Your task to perform on an android device: Open Youtube and go to "Your channel" Image 0: 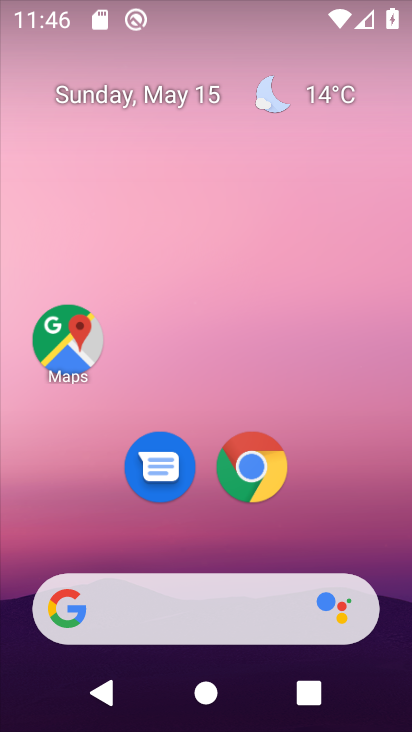
Step 0: drag from (217, 539) to (264, 36)
Your task to perform on an android device: Open Youtube and go to "Your channel" Image 1: 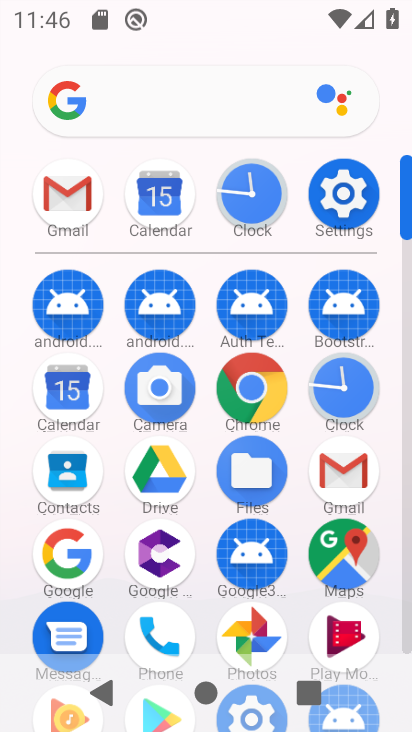
Step 1: drag from (299, 595) to (319, 209)
Your task to perform on an android device: Open Youtube and go to "Your channel" Image 2: 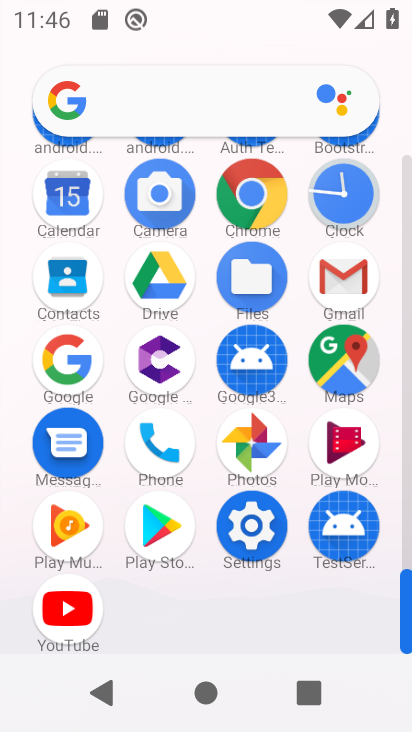
Step 2: click (72, 604)
Your task to perform on an android device: Open Youtube and go to "Your channel" Image 3: 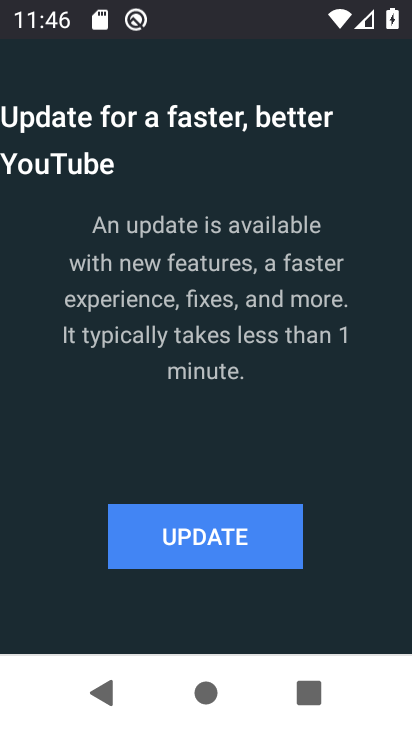
Step 3: click (222, 541)
Your task to perform on an android device: Open Youtube and go to "Your channel" Image 4: 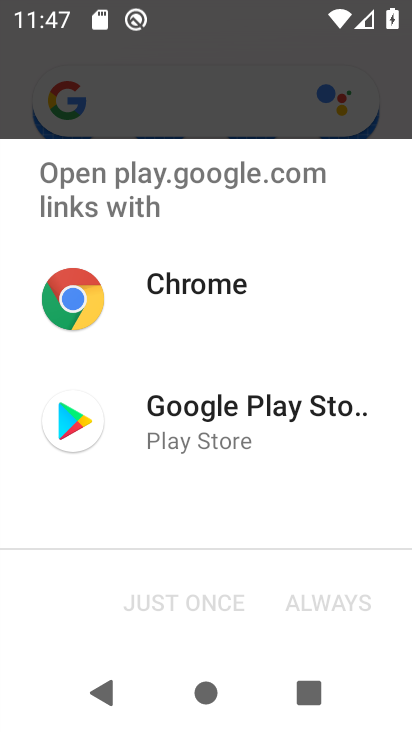
Step 4: click (135, 420)
Your task to perform on an android device: Open Youtube and go to "Your channel" Image 5: 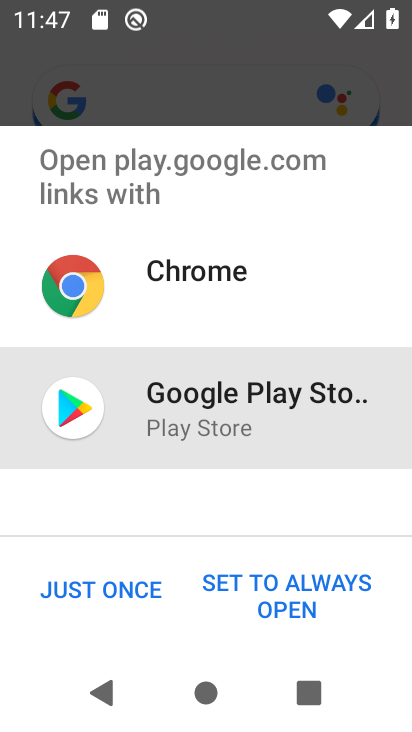
Step 5: click (97, 586)
Your task to perform on an android device: Open Youtube and go to "Your channel" Image 6: 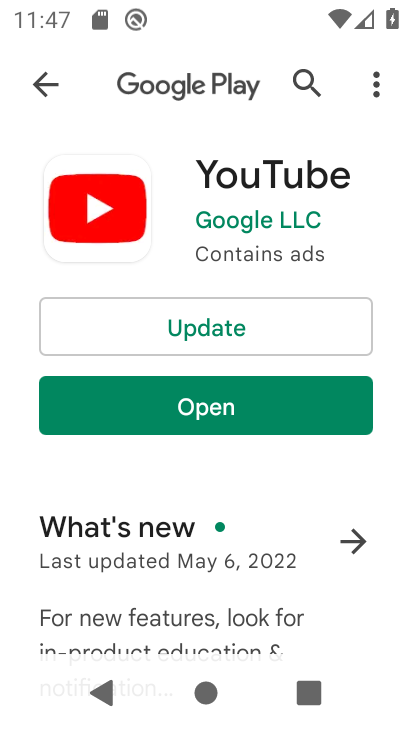
Step 6: click (215, 328)
Your task to perform on an android device: Open Youtube and go to "Your channel" Image 7: 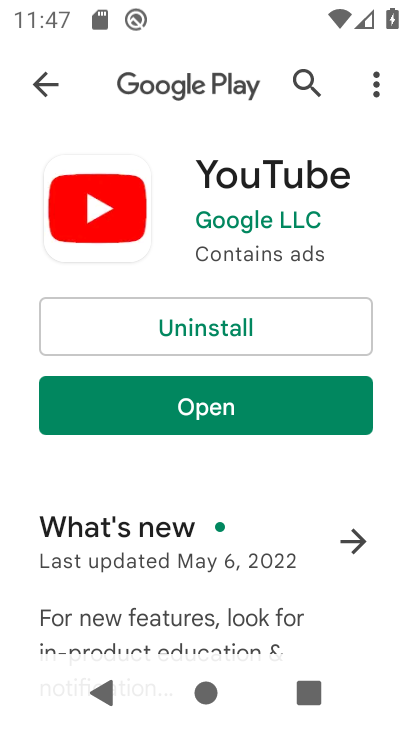
Step 7: click (222, 418)
Your task to perform on an android device: Open Youtube and go to "Your channel" Image 8: 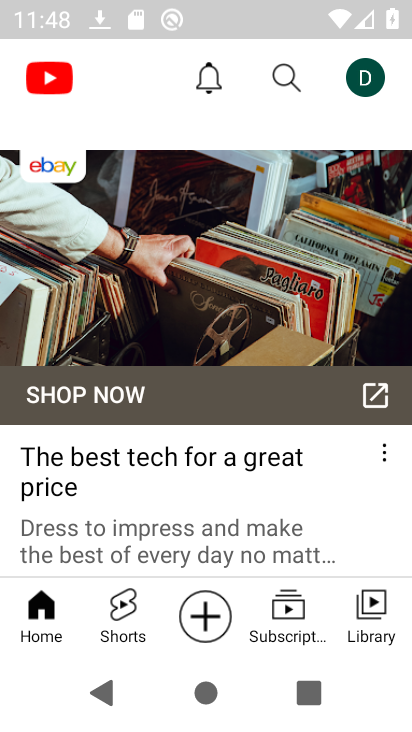
Step 8: click (363, 74)
Your task to perform on an android device: Open Youtube and go to "Your channel" Image 9: 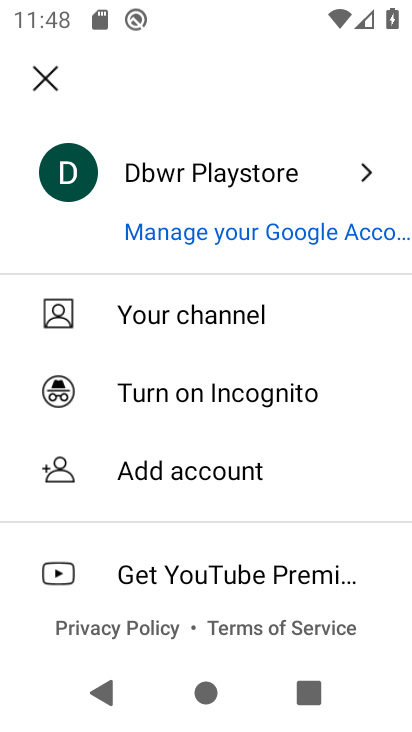
Step 9: click (201, 306)
Your task to perform on an android device: Open Youtube and go to "Your channel" Image 10: 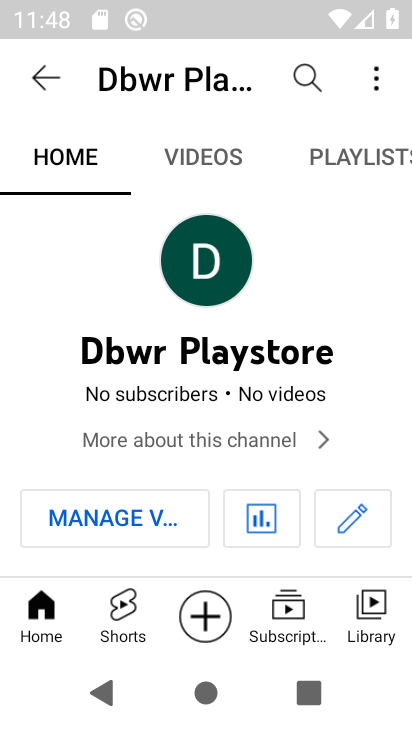
Step 10: task complete